Your task to perform on an android device: turn on improve location accuracy Image 0: 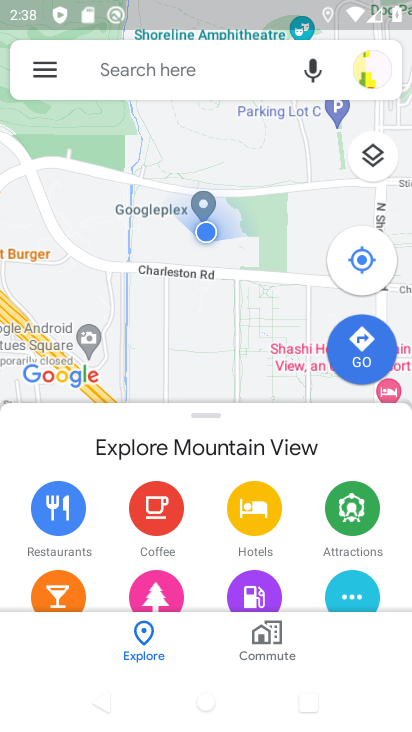
Step 0: press home button
Your task to perform on an android device: turn on improve location accuracy Image 1: 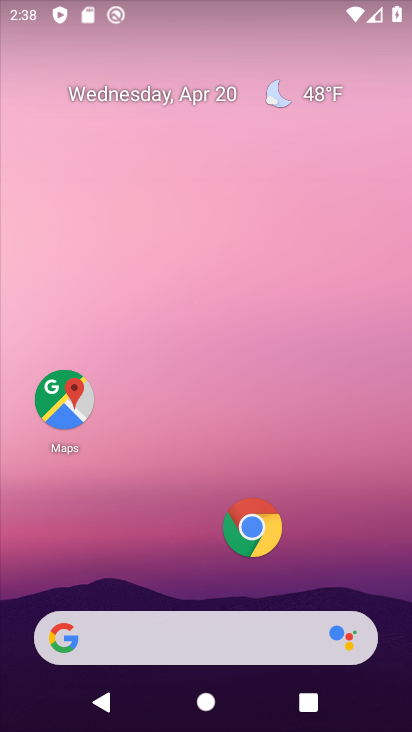
Step 1: drag from (186, 590) to (176, 44)
Your task to perform on an android device: turn on improve location accuracy Image 2: 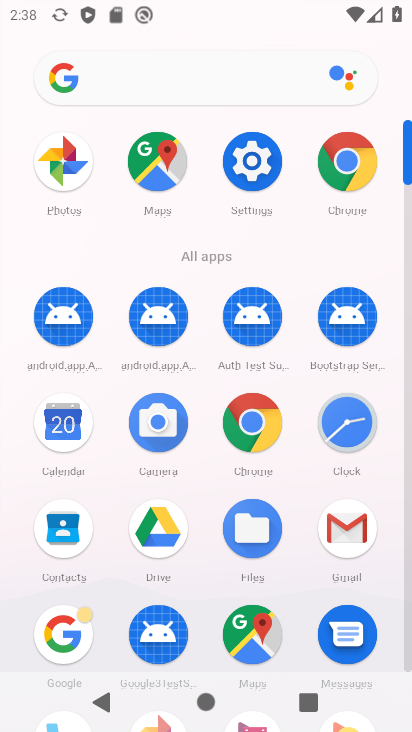
Step 2: click (248, 154)
Your task to perform on an android device: turn on improve location accuracy Image 3: 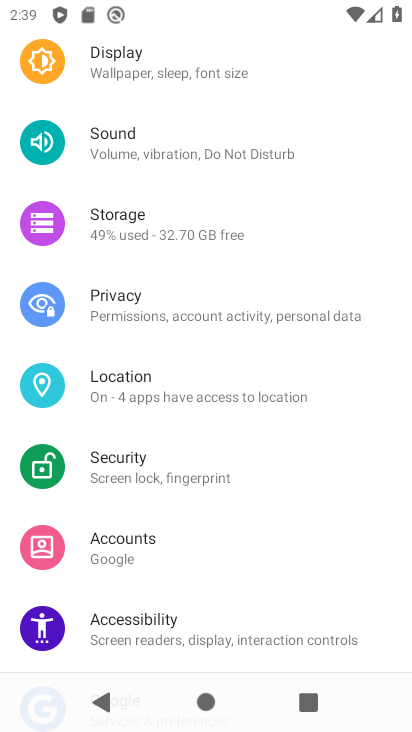
Step 3: click (149, 382)
Your task to perform on an android device: turn on improve location accuracy Image 4: 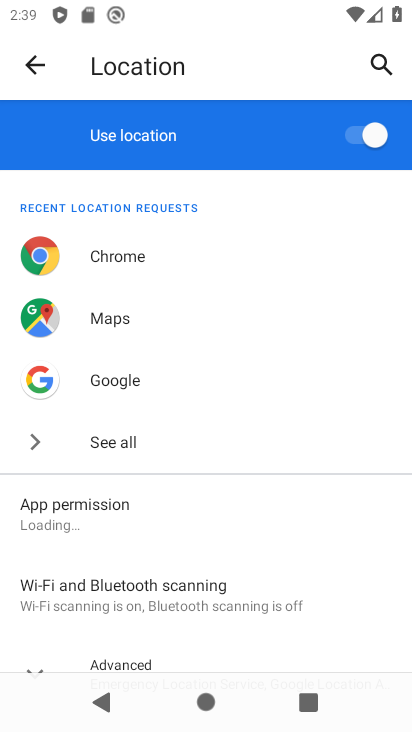
Step 4: drag from (83, 661) to (165, 189)
Your task to perform on an android device: turn on improve location accuracy Image 5: 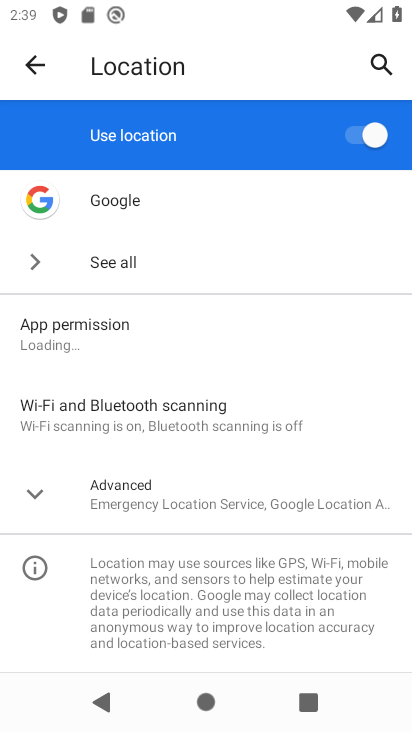
Step 5: click (150, 506)
Your task to perform on an android device: turn on improve location accuracy Image 6: 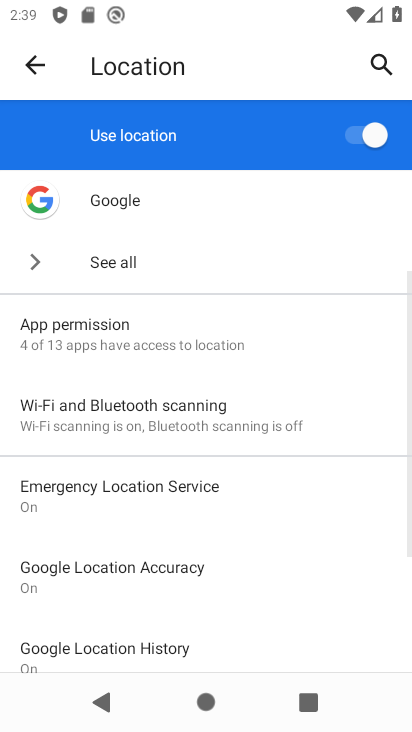
Step 6: click (175, 556)
Your task to perform on an android device: turn on improve location accuracy Image 7: 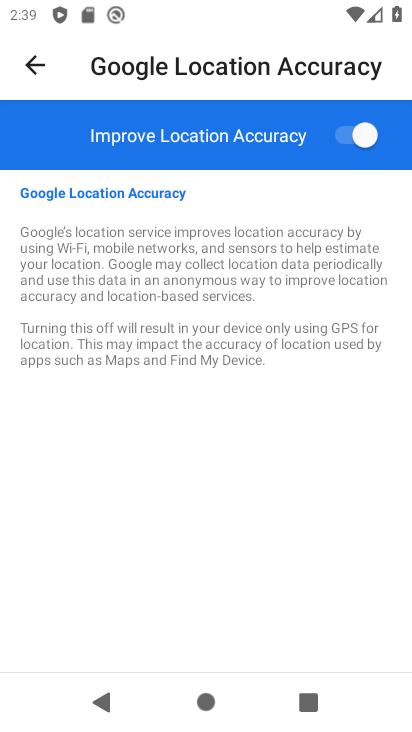
Step 7: task complete